Your task to perform on an android device: install app "Google News" Image 0: 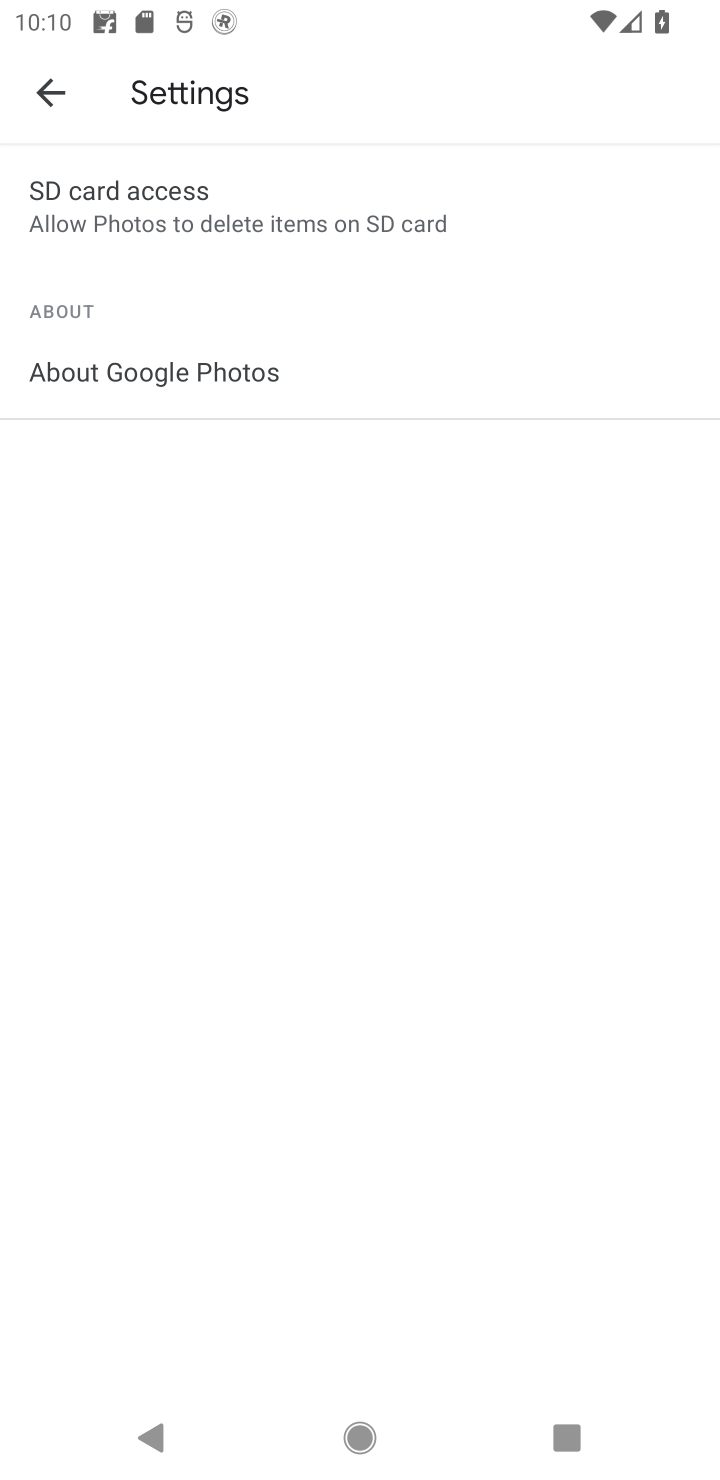
Step 0: press home button
Your task to perform on an android device: install app "Google News" Image 1: 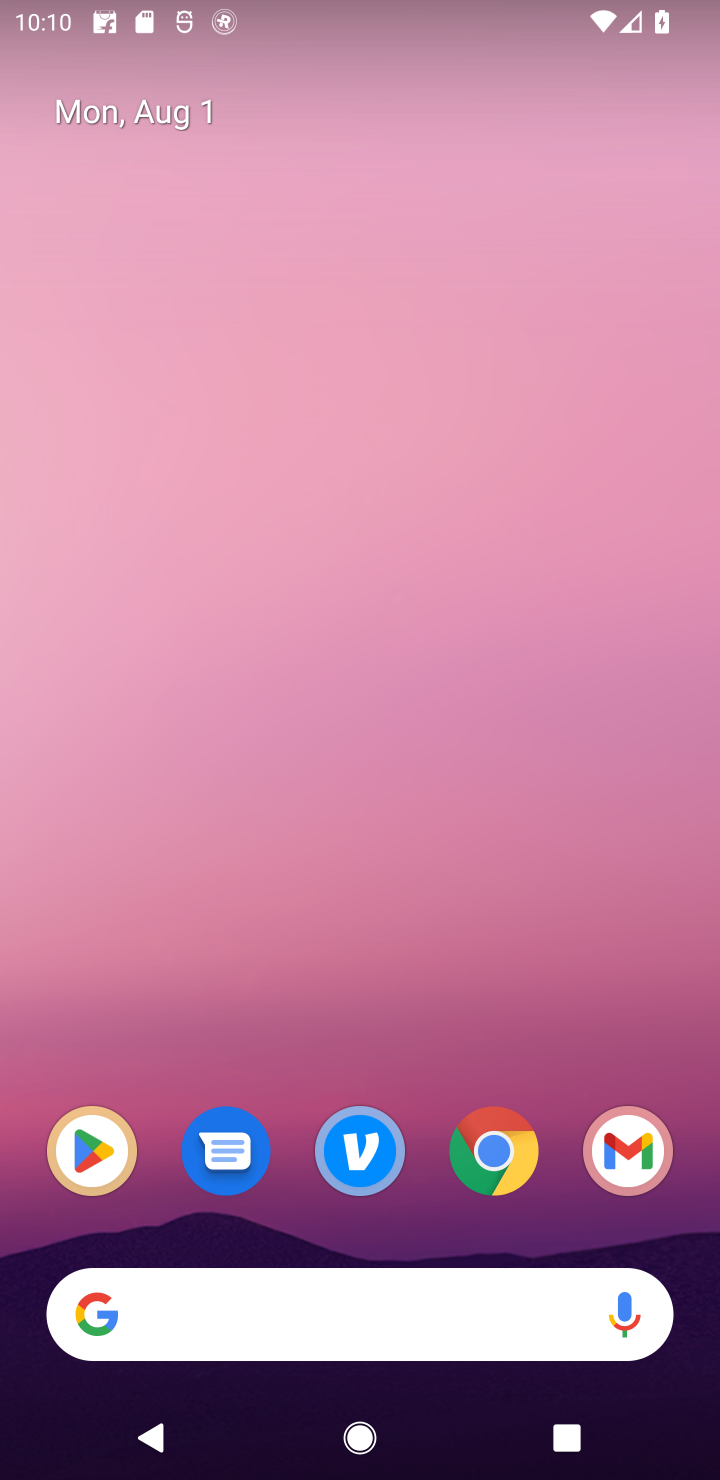
Step 1: click (100, 1128)
Your task to perform on an android device: install app "Google News" Image 2: 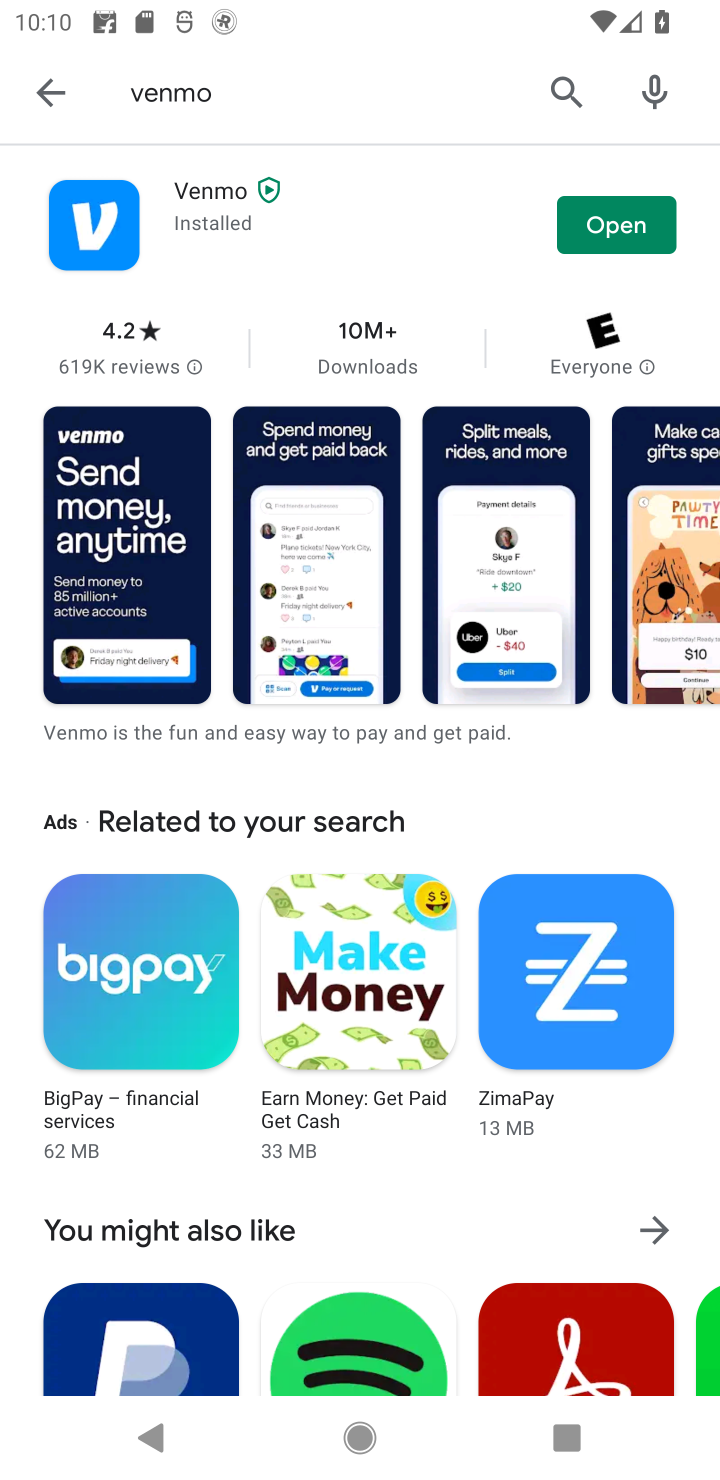
Step 2: click (576, 82)
Your task to perform on an android device: install app "Google News" Image 3: 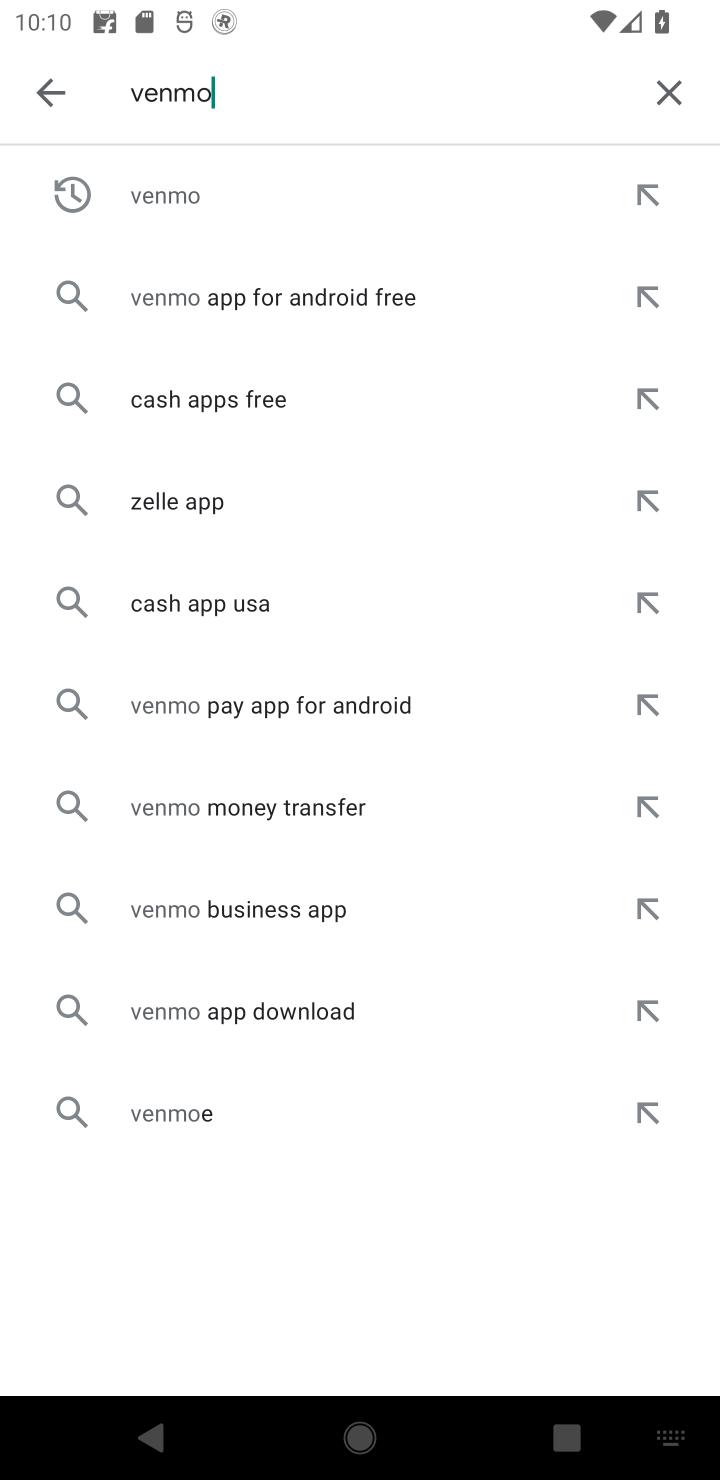
Step 3: click (671, 88)
Your task to perform on an android device: install app "Google News" Image 4: 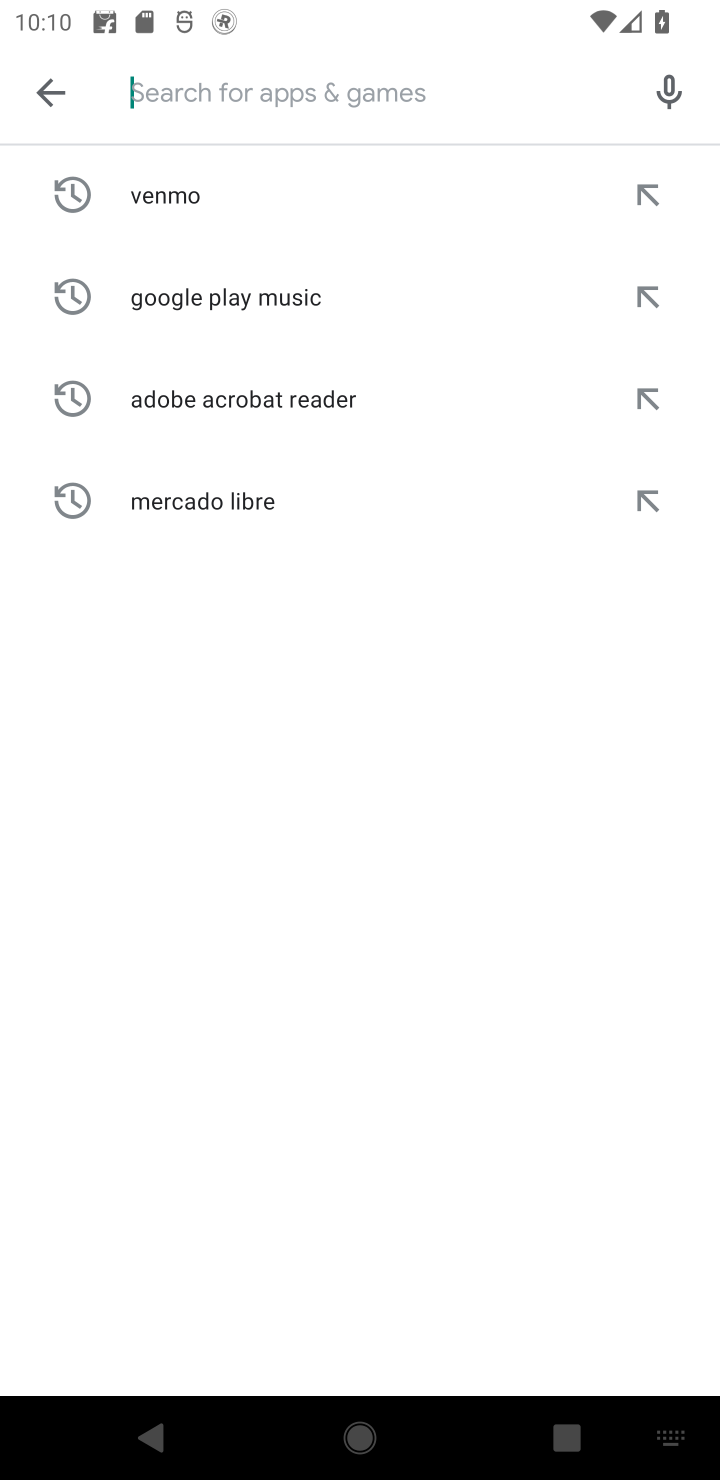
Step 4: type "Google News"
Your task to perform on an android device: install app "Google News" Image 5: 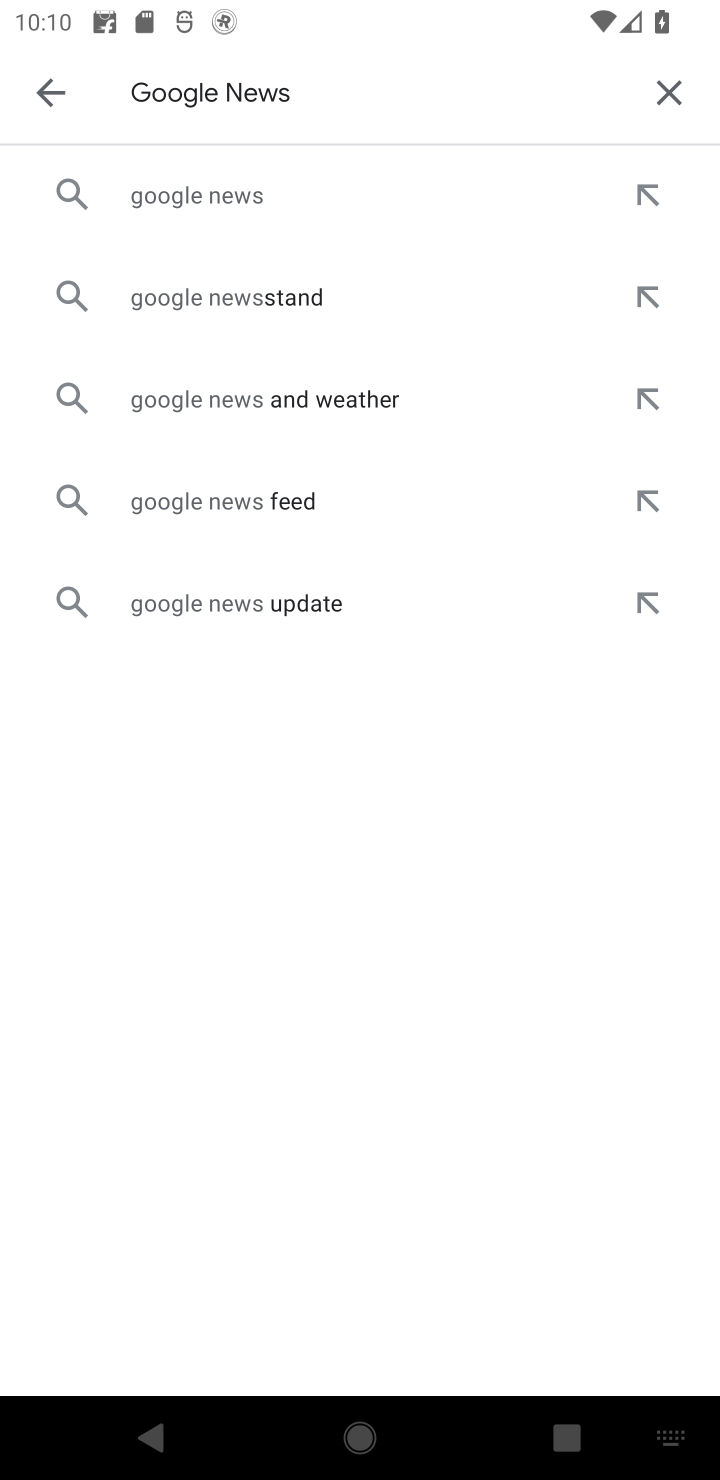
Step 5: click (242, 212)
Your task to perform on an android device: install app "Google News" Image 6: 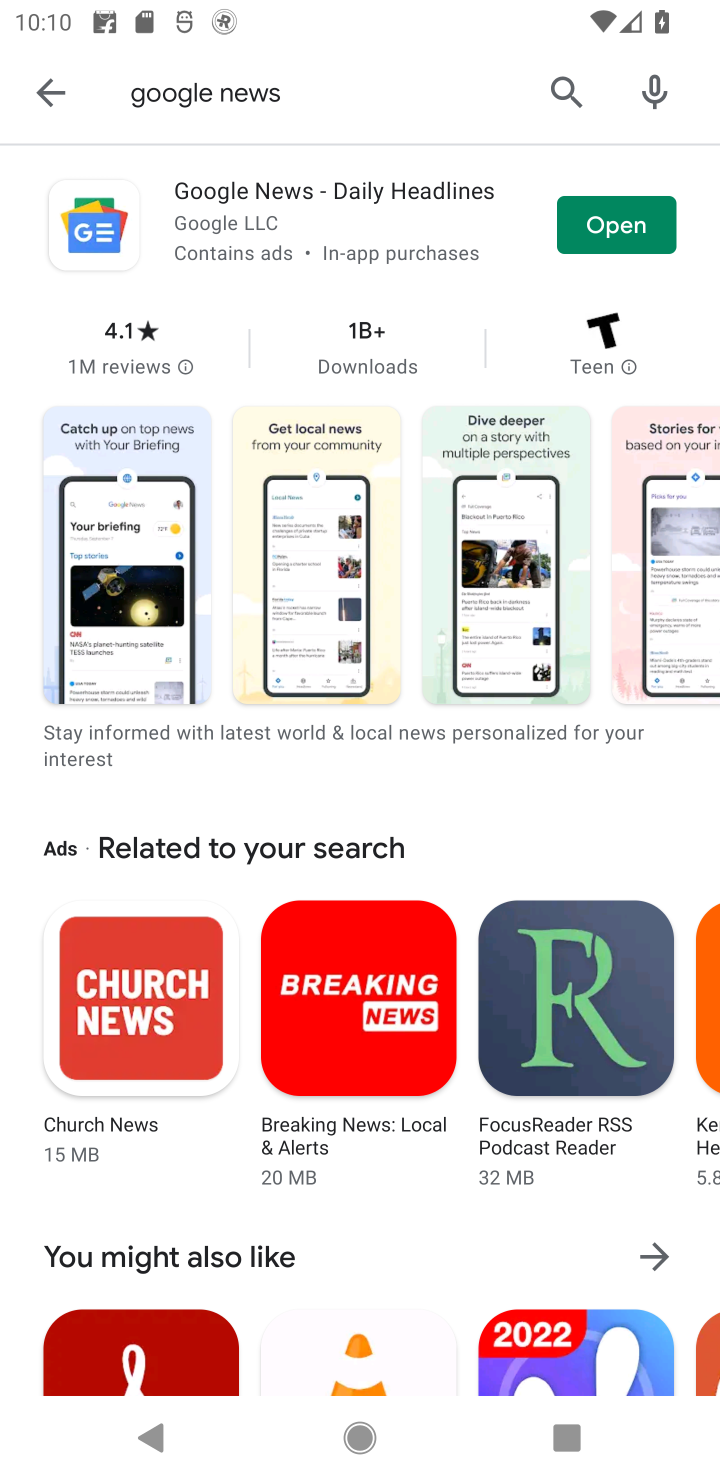
Step 6: task complete